Your task to perform on an android device: turn off sleep mode Image 0: 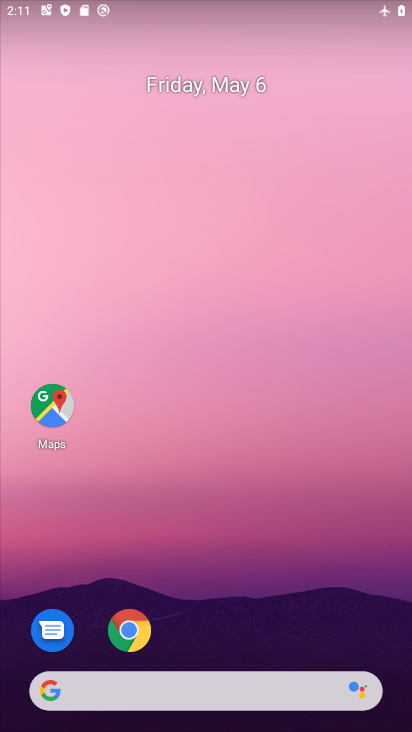
Step 0: drag from (210, 678) to (119, 74)
Your task to perform on an android device: turn off sleep mode Image 1: 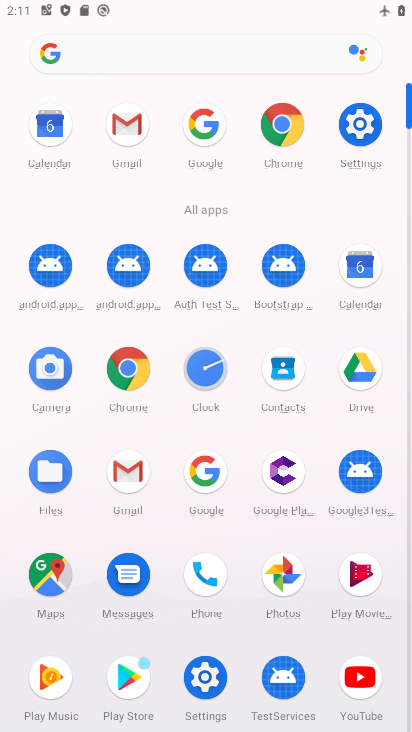
Step 1: click (351, 144)
Your task to perform on an android device: turn off sleep mode Image 2: 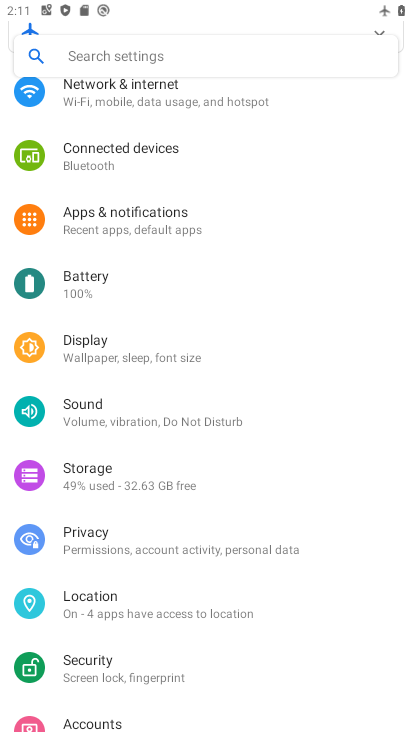
Step 2: click (117, 343)
Your task to perform on an android device: turn off sleep mode Image 3: 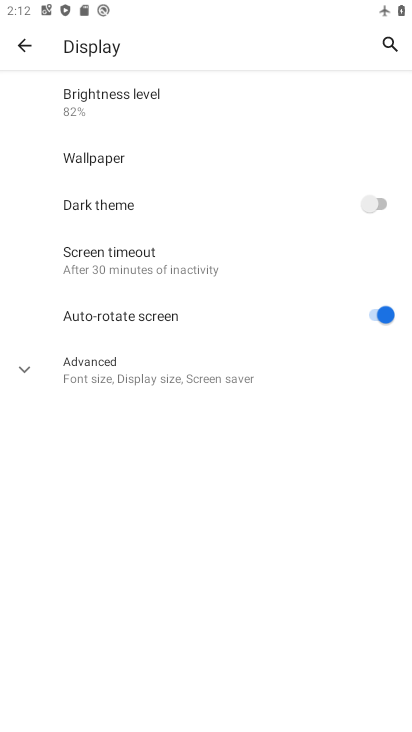
Step 3: click (155, 363)
Your task to perform on an android device: turn off sleep mode Image 4: 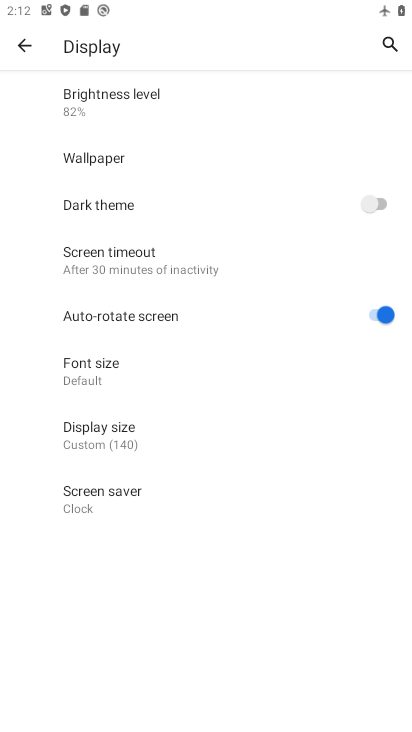
Step 4: task complete